Your task to perform on an android device: uninstall "Mercado Libre" Image 0: 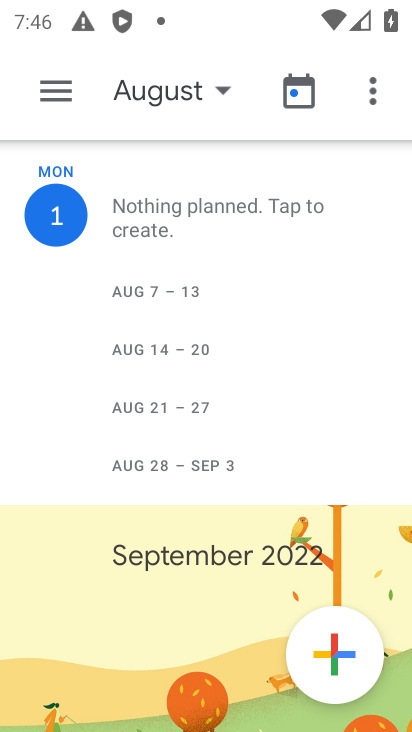
Step 0: press home button
Your task to perform on an android device: uninstall "Mercado Libre" Image 1: 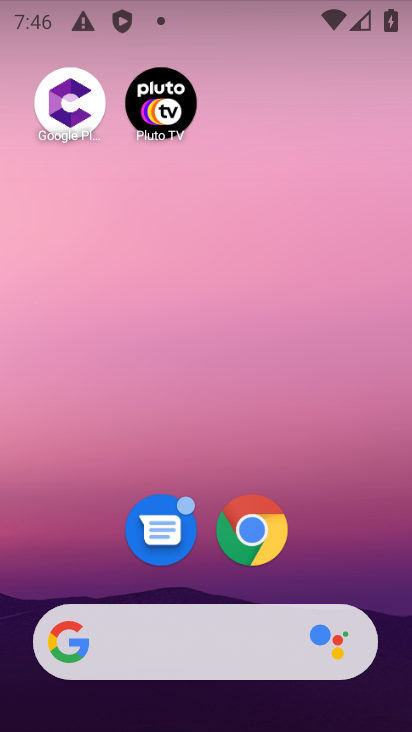
Step 1: drag from (318, 536) to (408, 236)
Your task to perform on an android device: uninstall "Mercado Libre" Image 2: 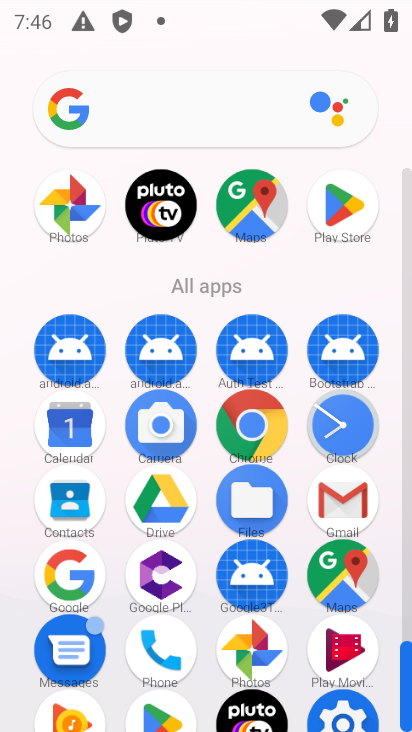
Step 2: click (329, 215)
Your task to perform on an android device: uninstall "Mercado Libre" Image 3: 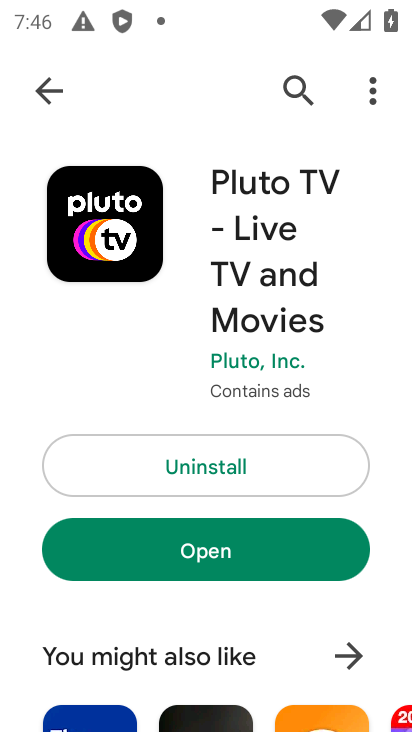
Step 3: click (50, 85)
Your task to perform on an android device: uninstall "Mercado Libre" Image 4: 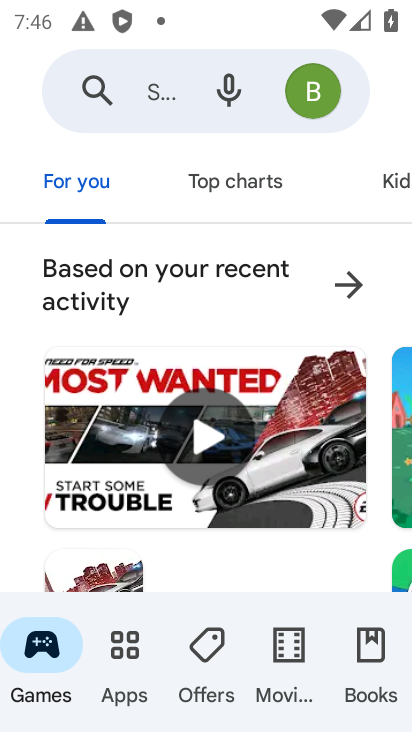
Step 4: click (168, 82)
Your task to perform on an android device: uninstall "Mercado Libre" Image 5: 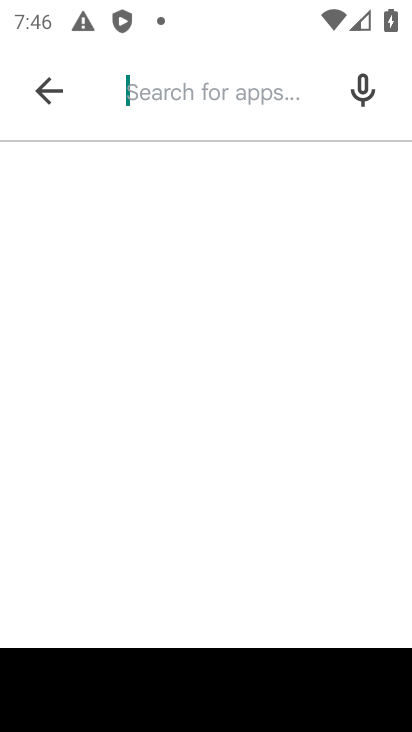
Step 5: type "Mercado Libre""
Your task to perform on an android device: uninstall "Mercado Libre" Image 6: 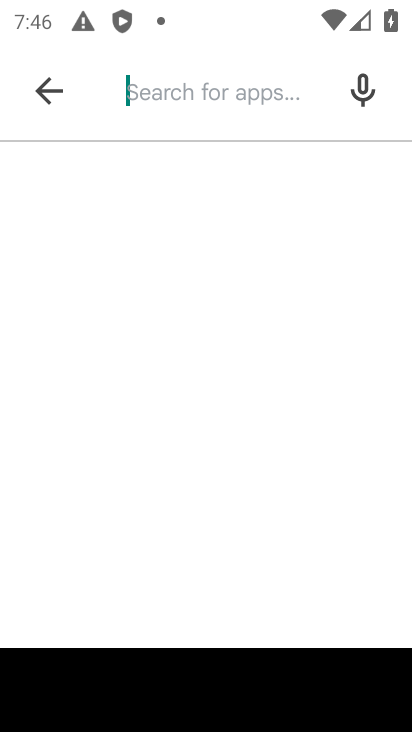
Step 6: type "Mercado Libre""
Your task to perform on an android device: uninstall "Mercado Libre" Image 7: 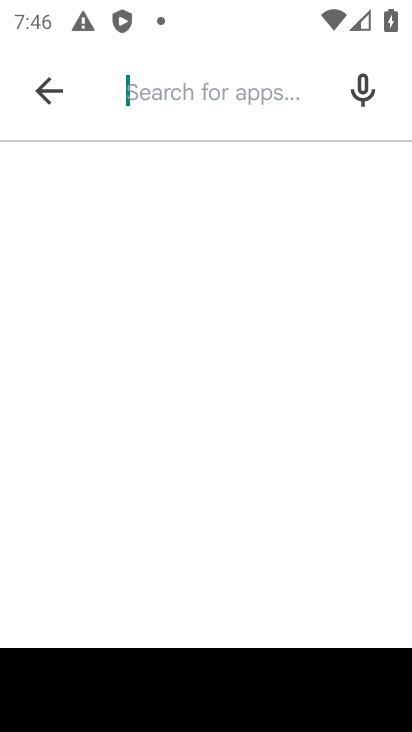
Step 7: type "merco libre"
Your task to perform on an android device: uninstall "Mercado Libre" Image 8: 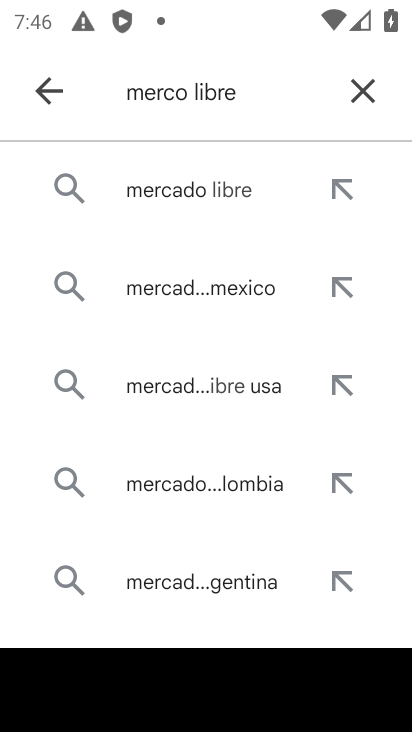
Step 8: click (218, 205)
Your task to perform on an android device: uninstall "Mercado Libre" Image 9: 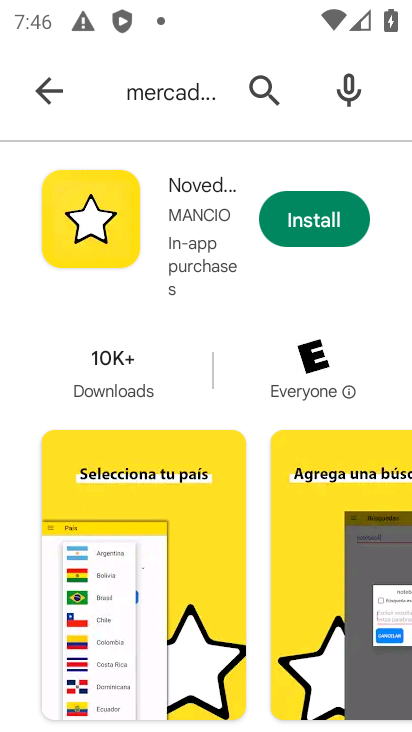
Step 9: task complete